Your task to perform on an android device: Open settings on Google Maps Image 0: 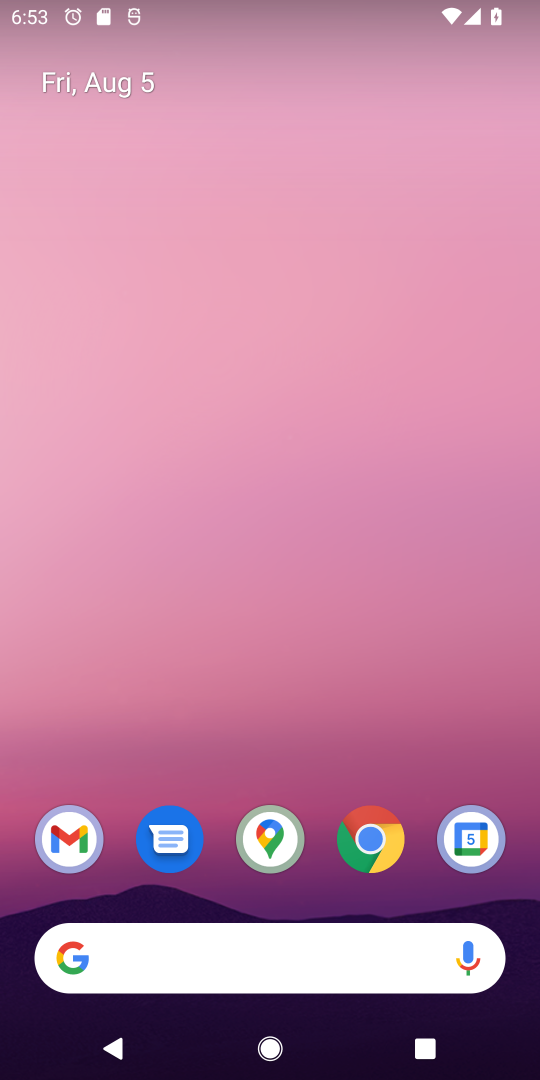
Step 0: click (262, 822)
Your task to perform on an android device: Open settings on Google Maps Image 1: 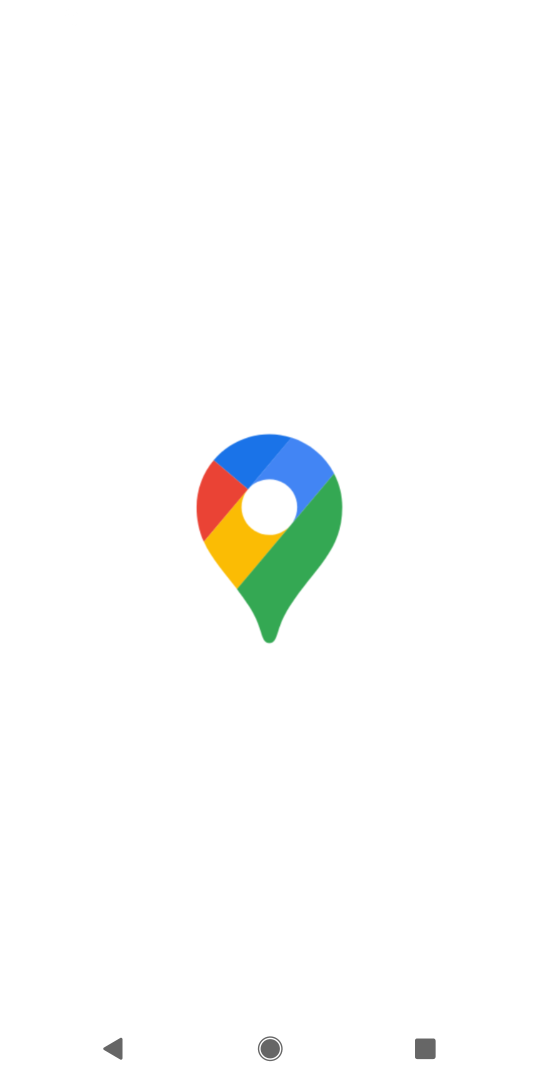
Step 1: task complete